Your task to perform on an android device: Open Reddit.com Image 0: 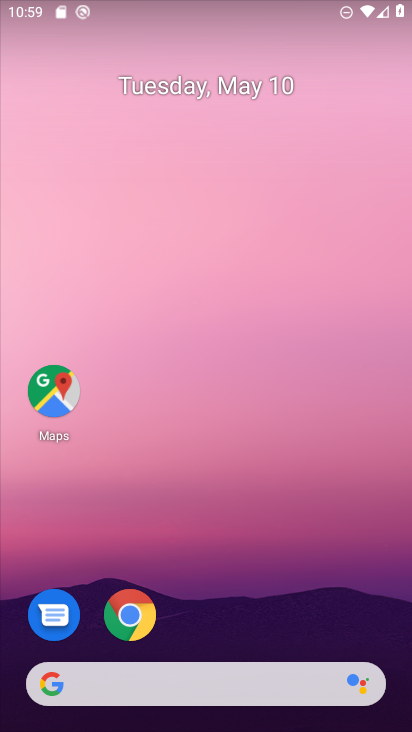
Step 0: drag from (177, 638) to (289, 112)
Your task to perform on an android device: Open Reddit.com Image 1: 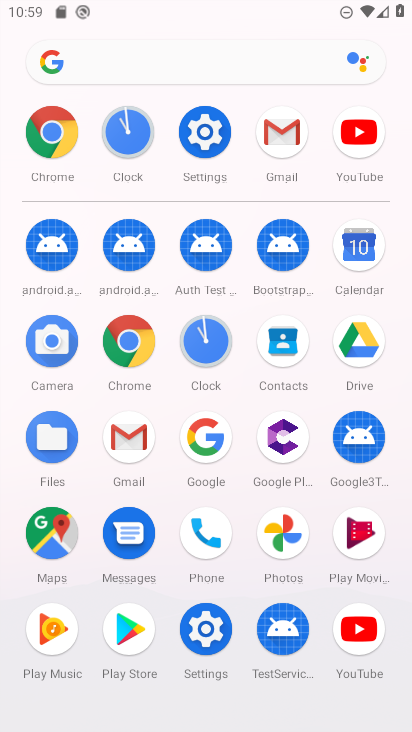
Step 1: click (210, 343)
Your task to perform on an android device: Open Reddit.com Image 2: 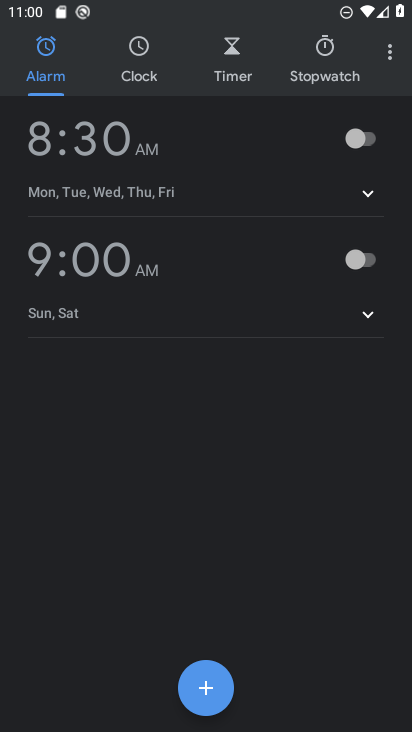
Step 2: press home button
Your task to perform on an android device: Open Reddit.com Image 3: 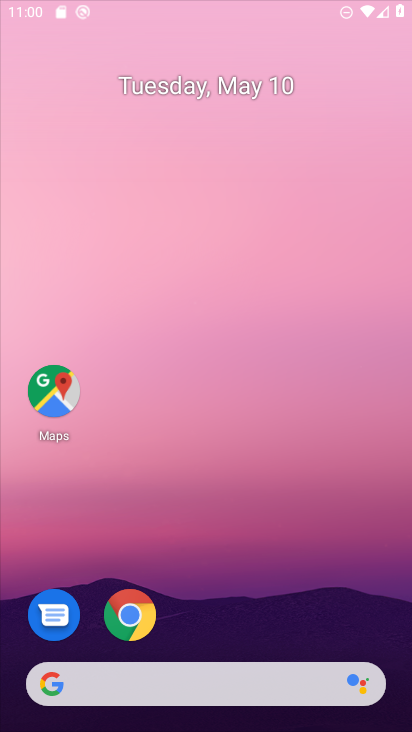
Step 3: drag from (243, 614) to (358, 110)
Your task to perform on an android device: Open Reddit.com Image 4: 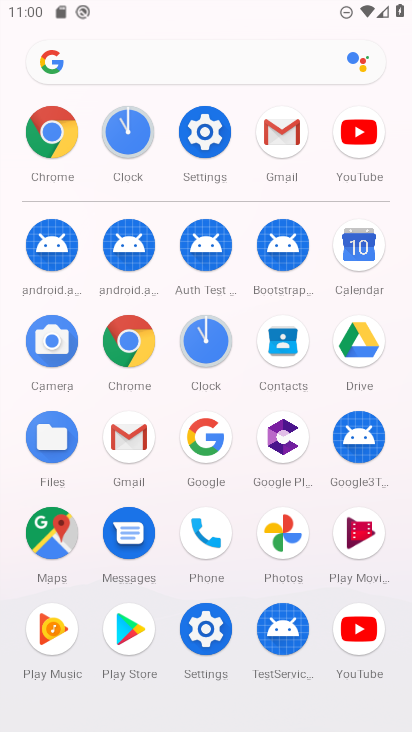
Step 4: click (195, 64)
Your task to perform on an android device: Open Reddit.com Image 5: 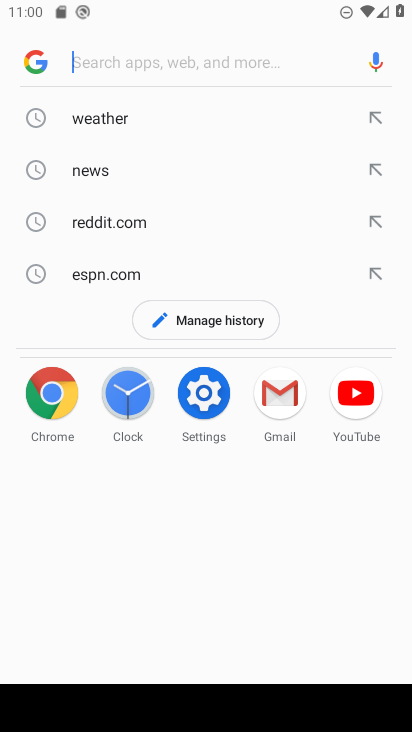
Step 5: type "reddit"
Your task to perform on an android device: Open Reddit.com Image 6: 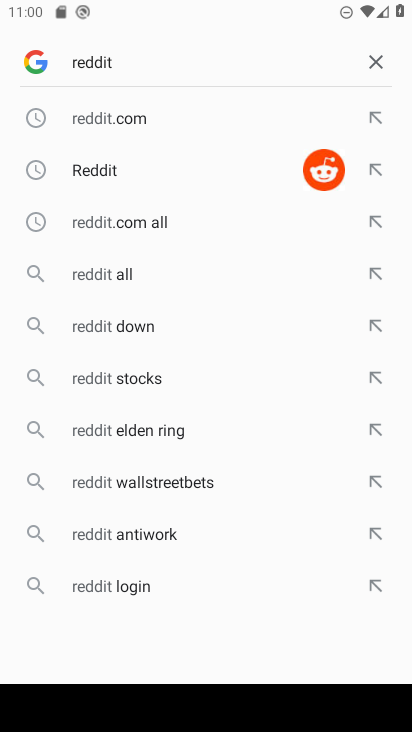
Step 6: click (170, 126)
Your task to perform on an android device: Open Reddit.com Image 7: 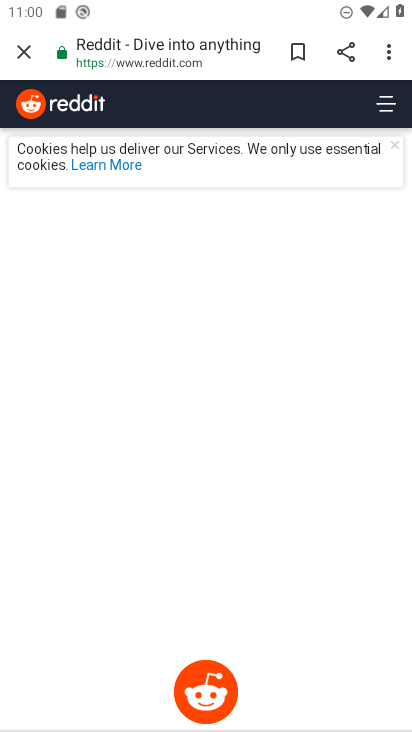
Step 7: task complete